Your task to perform on an android device: Open accessibility settings Image 0: 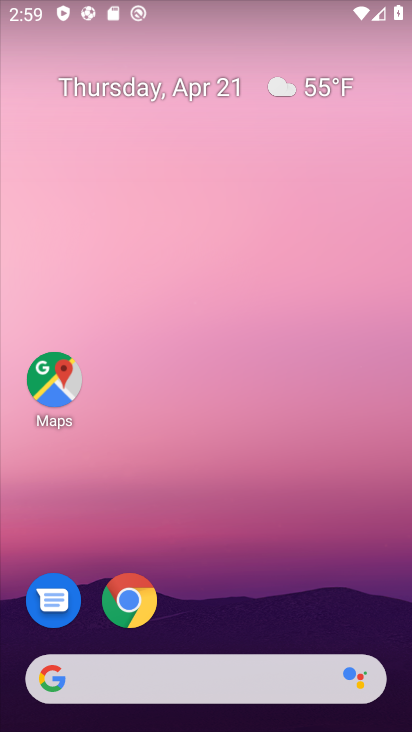
Step 0: drag from (186, 674) to (308, 127)
Your task to perform on an android device: Open accessibility settings Image 1: 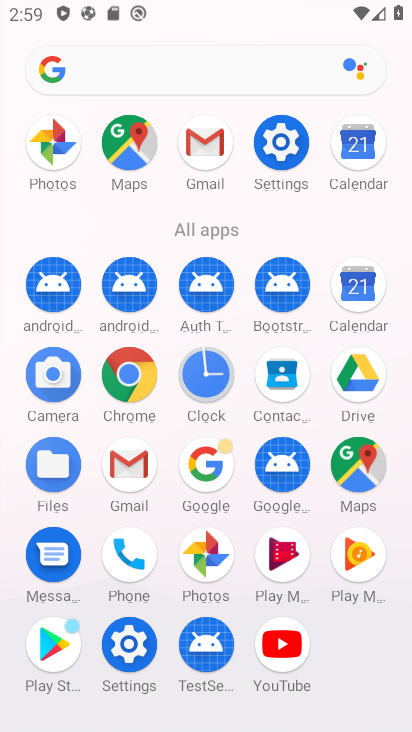
Step 1: click (284, 152)
Your task to perform on an android device: Open accessibility settings Image 2: 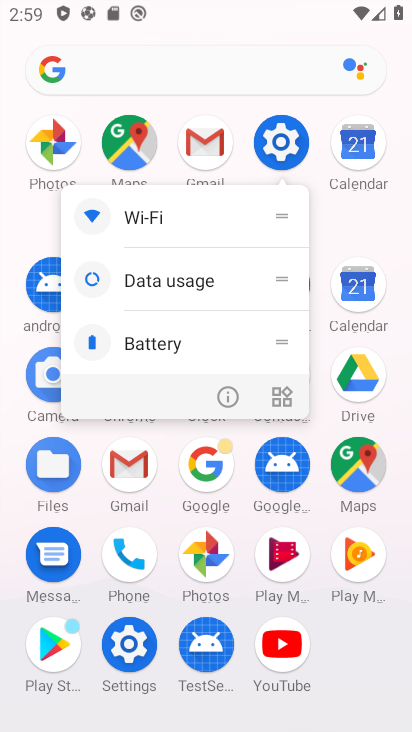
Step 2: click (283, 148)
Your task to perform on an android device: Open accessibility settings Image 3: 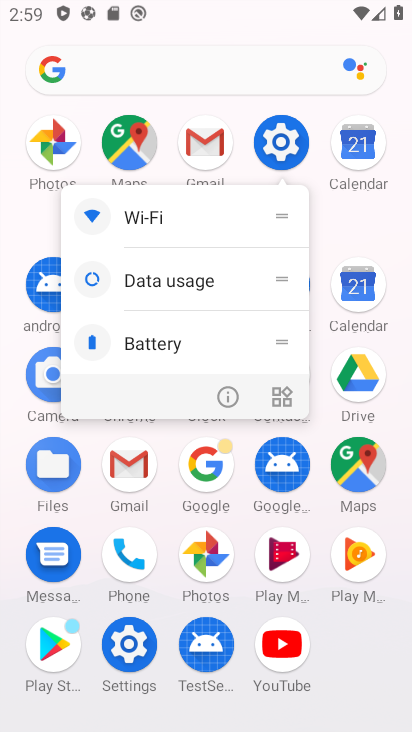
Step 3: click (280, 141)
Your task to perform on an android device: Open accessibility settings Image 4: 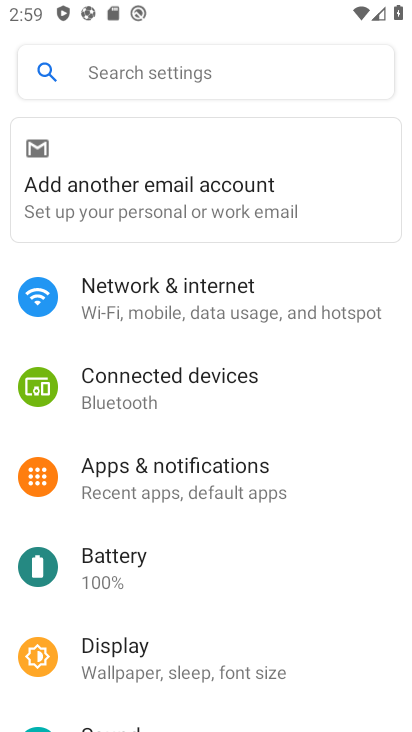
Step 4: drag from (201, 610) to (335, 147)
Your task to perform on an android device: Open accessibility settings Image 5: 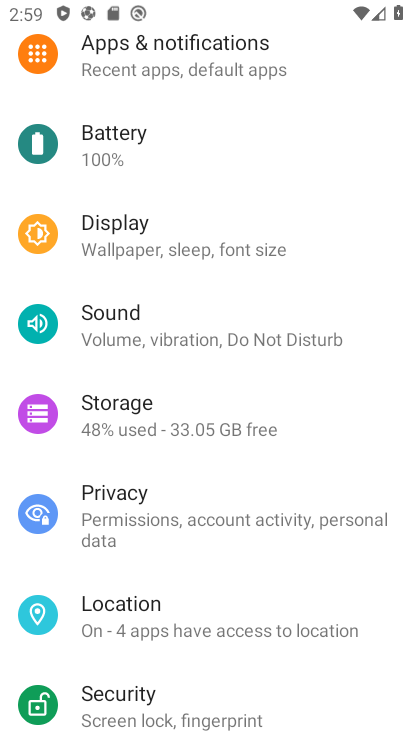
Step 5: drag from (198, 575) to (308, 210)
Your task to perform on an android device: Open accessibility settings Image 6: 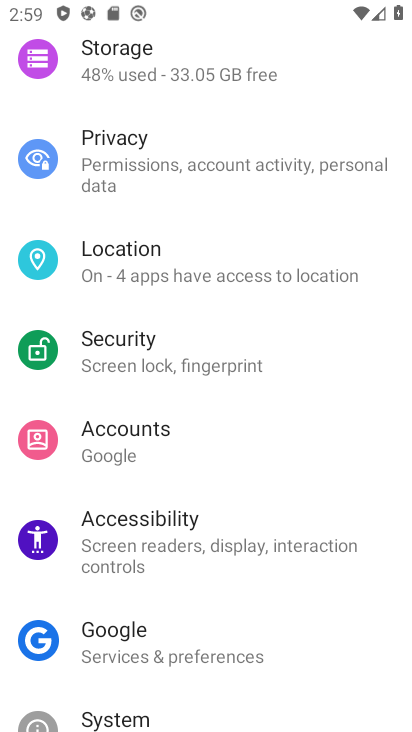
Step 6: click (165, 525)
Your task to perform on an android device: Open accessibility settings Image 7: 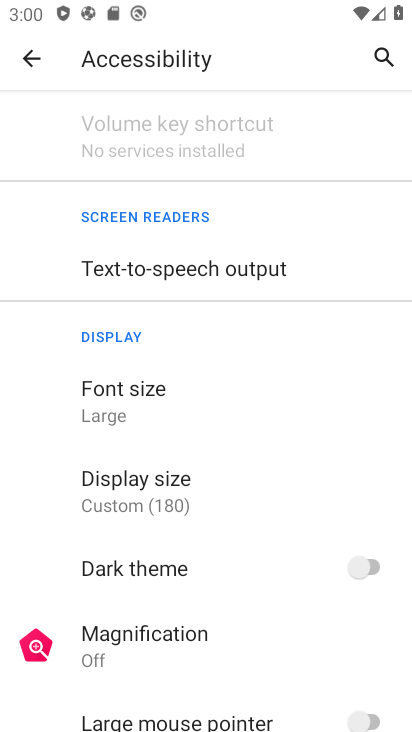
Step 7: task complete